Your task to perform on an android device: Go to Yahoo.com Image 0: 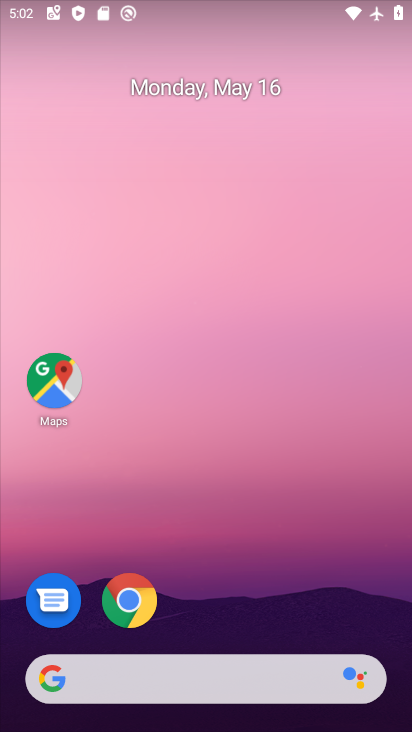
Step 0: drag from (194, 636) to (191, 26)
Your task to perform on an android device: Go to Yahoo.com Image 1: 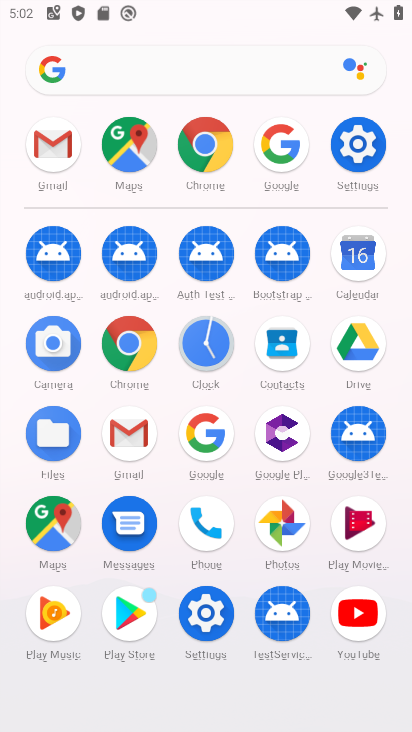
Step 1: click (135, 348)
Your task to perform on an android device: Go to Yahoo.com Image 2: 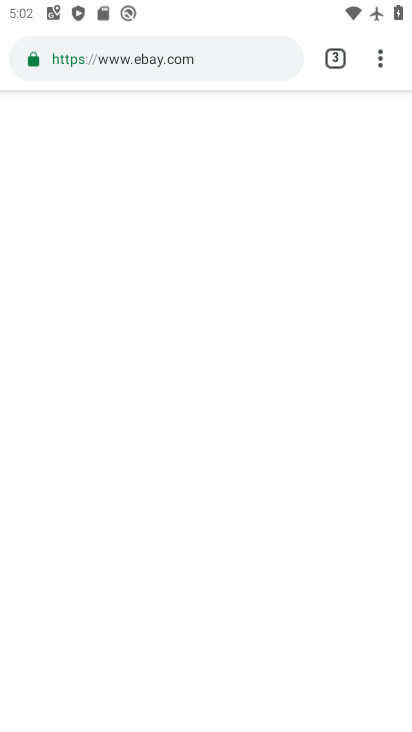
Step 2: click (330, 49)
Your task to perform on an android device: Go to Yahoo.com Image 3: 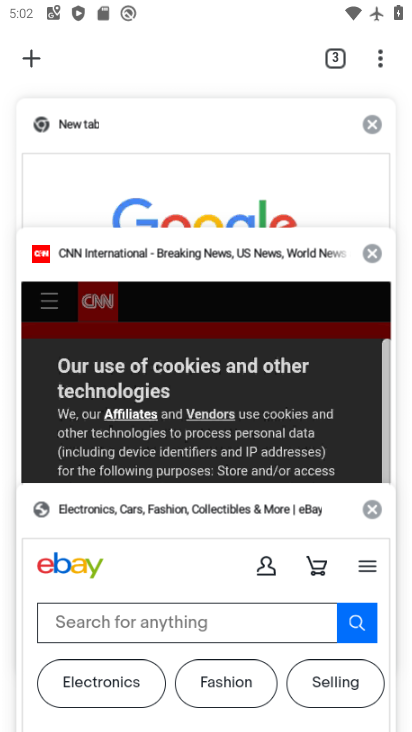
Step 3: click (35, 49)
Your task to perform on an android device: Go to Yahoo.com Image 4: 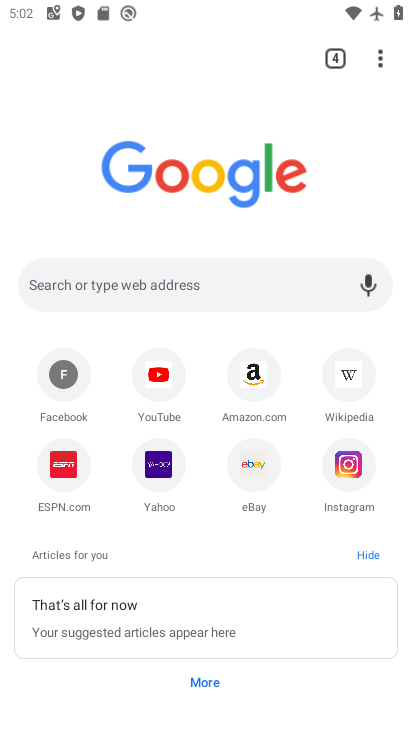
Step 4: click (161, 456)
Your task to perform on an android device: Go to Yahoo.com Image 5: 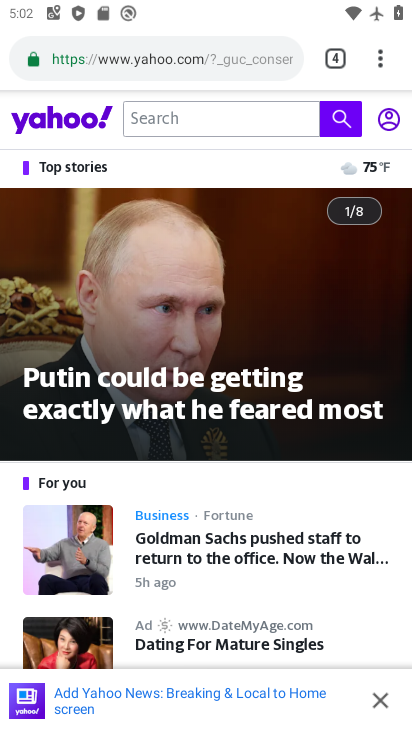
Step 5: task complete